Your task to perform on an android device: turn on data saver in the chrome app Image 0: 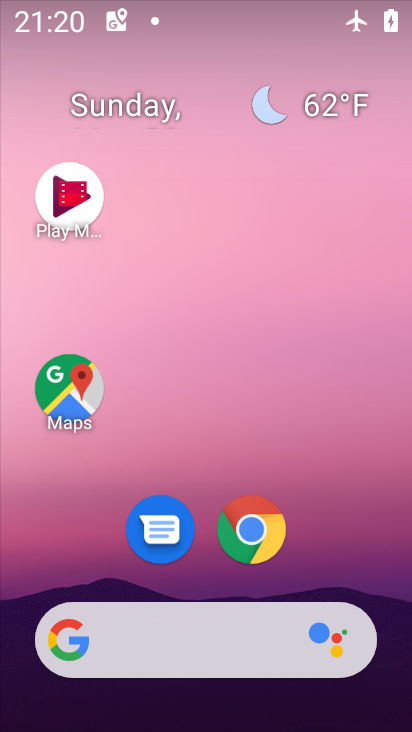
Step 0: drag from (267, 721) to (209, 47)
Your task to perform on an android device: turn on data saver in the chrome app Image 1: 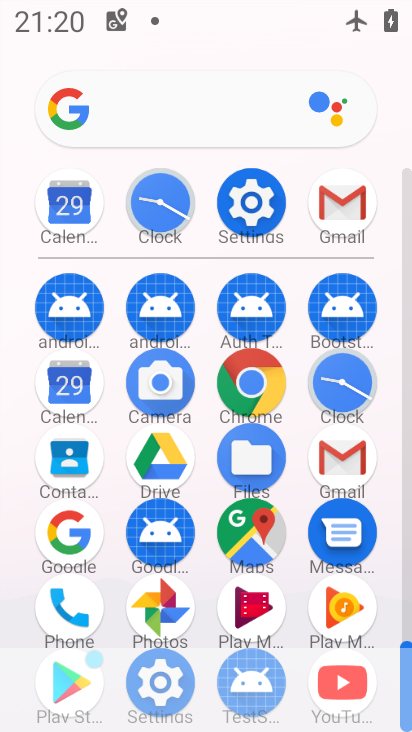
Step 1: click (255, 386)
Your task to perform on an android device: turn on data saver in the chrome app Image 2: 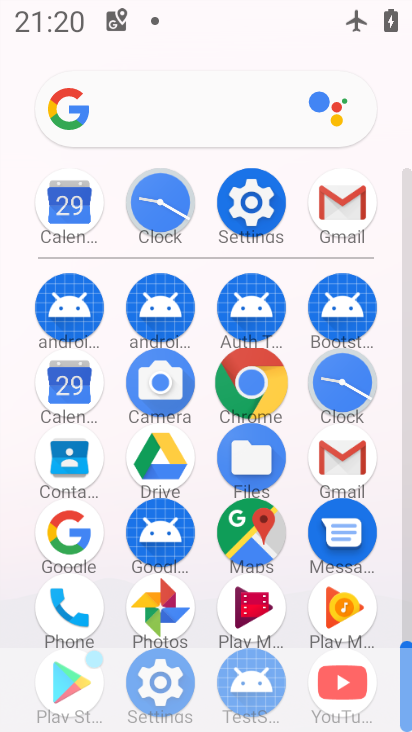
Step 2: click (264, 377)
Your task to perform on an android device: turn on data saver in the chrome app Image 3: 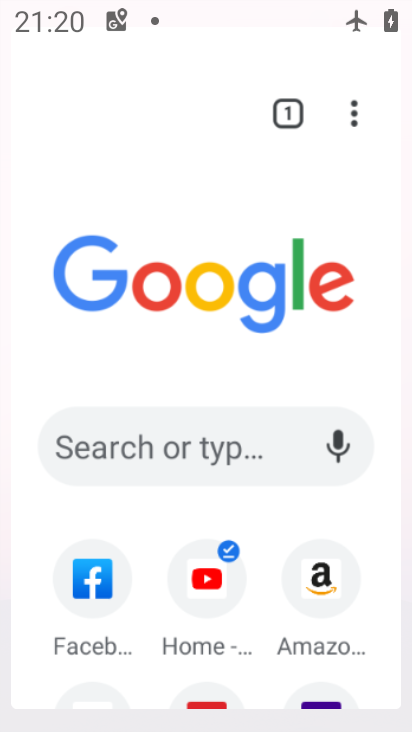
Step 3: click (263, 377)
Your task to perform on an android device: turn on data saver in the chrome app Image 4: 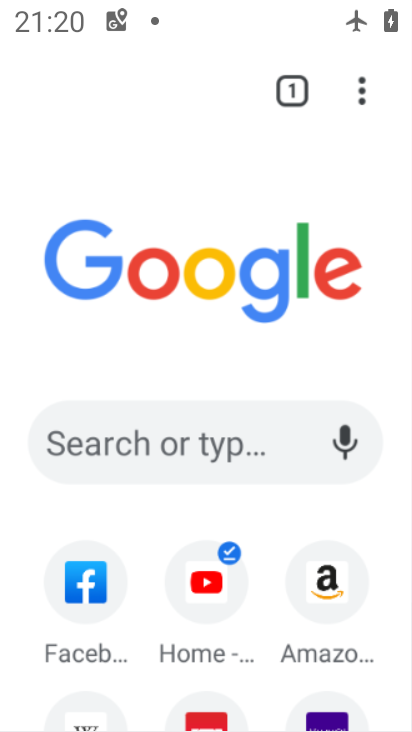
Step 4: click (263, 377)
Your task to perform on an android device: turn on data saver in the chrome app Image 5: 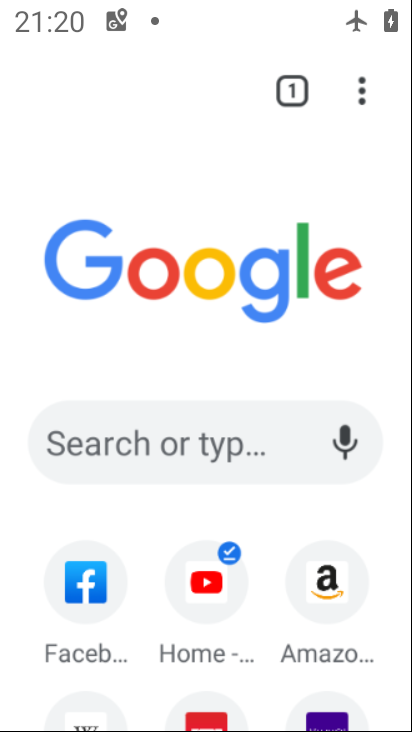
Step 5: click (262, 376)
Your task to perform on an android device: turn on data saver in the chrome app Image 6: 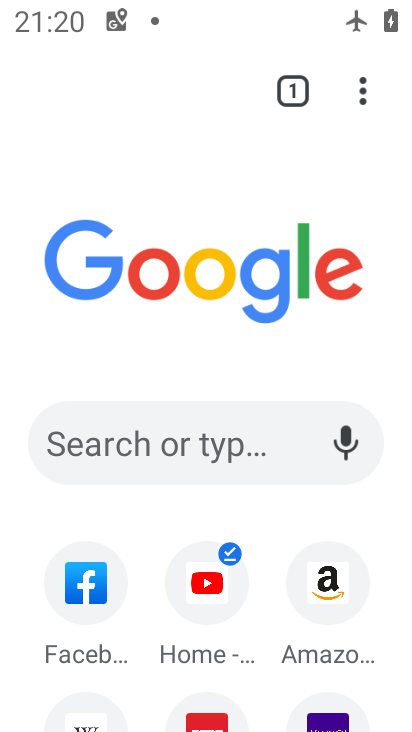
Step 6: drag from (361, 97) to (111, 549)
Your task to perform on an android device: turn on data saver in the chrome app Image 7: 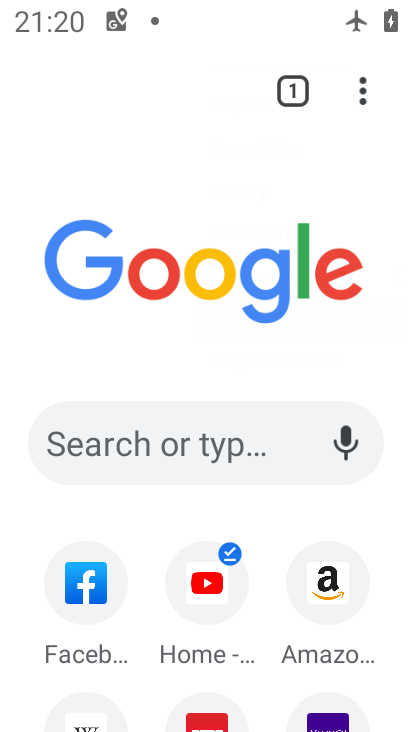
Step 7: click (111, 549)
Your task to perform on an android device: turn on data saver in the chrome app Image 8: 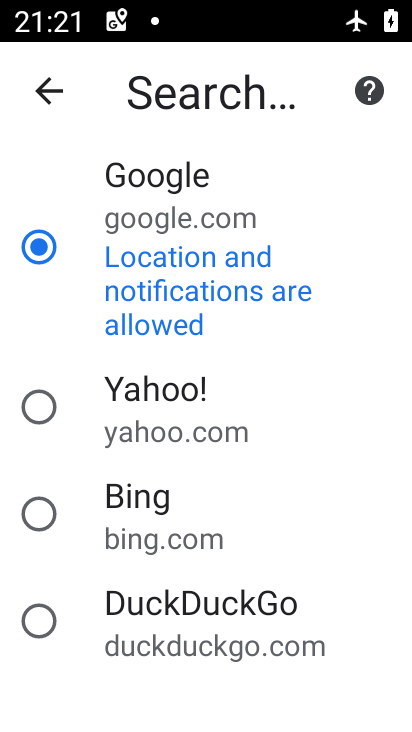
Step 8: click (38, 90)
Your task to perform on an android device: turn on data saver in the chrome app Image 9: 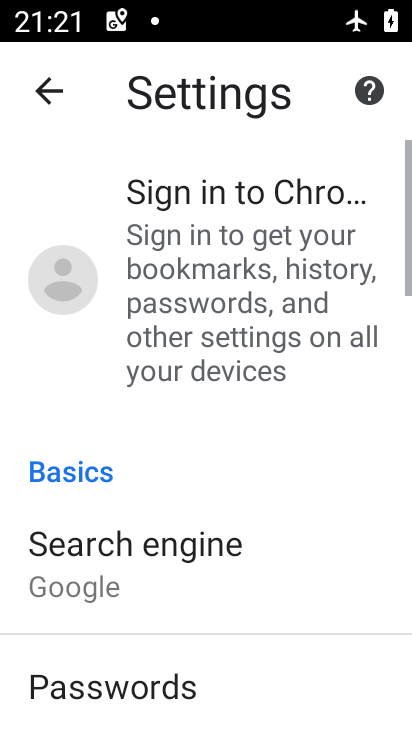
Step 9: drag from (113, 440) to (113, 147)
Your task to perform on an android device: turn on data saver in the chrome app Image 10: 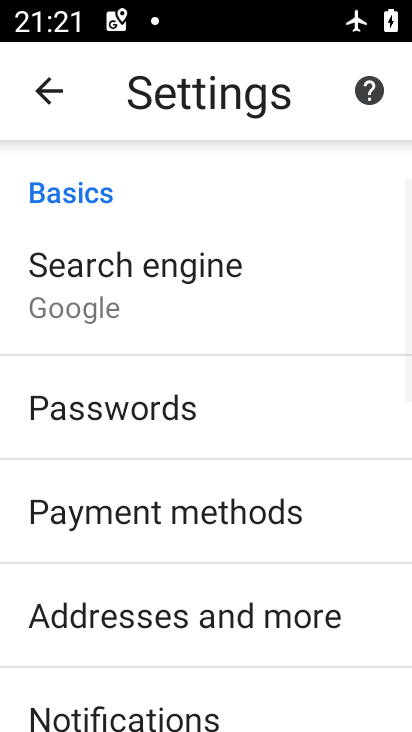
Step 10: drag from (186, 473) to (184, 28)
Your task to perform on an android device: turn on data saver in the chrome app Image 11: 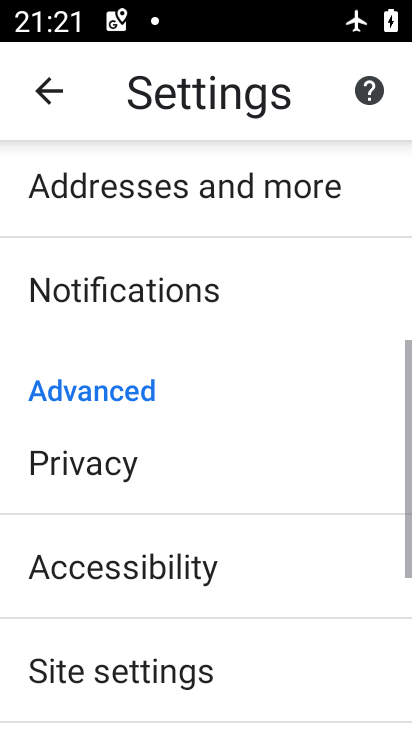
Step 11: drag from (165, 400) to (165, 94)
Your task to perform on an android device: turn on data saver in the chrome app Image 12: 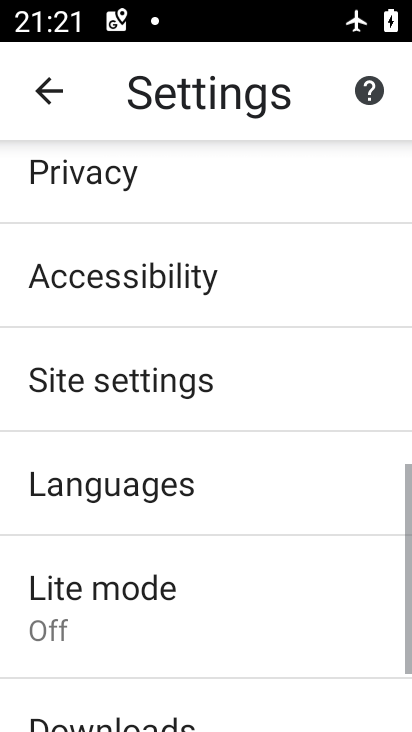
Step 12: drag from (136, 509) to (135, 214)
Your task to perform on an android device: turn on data saver in the chrome app Image 13: 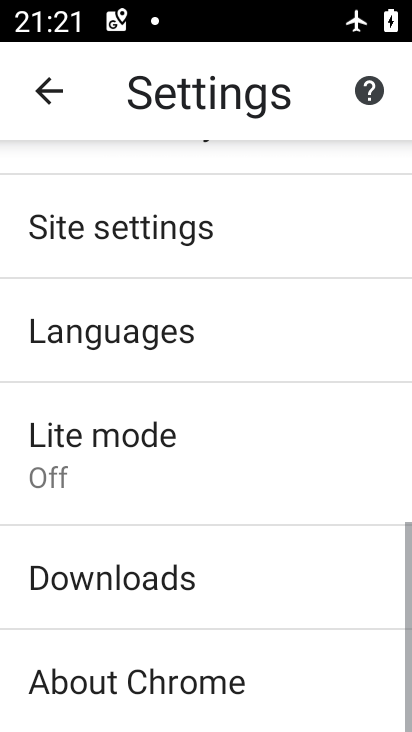
Step 13: drag from (144, 503) to (155, 250)
Your task to perform on an android device: turn on data saver in the chrome app Image 14: 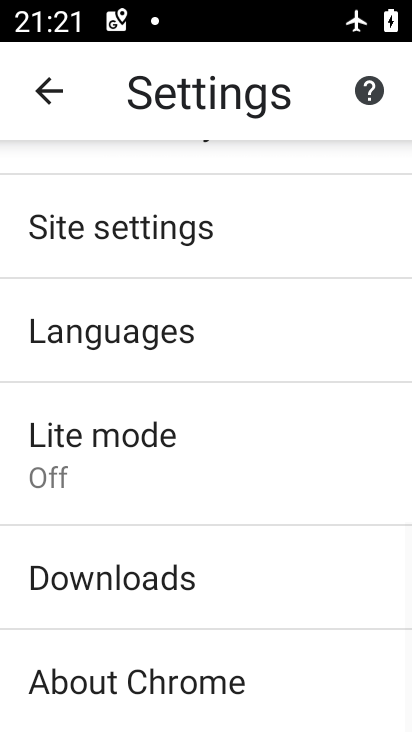
Step 14: click (98, 430)
Your task to perform on an android device: turn on data saver in the chrome app Image 15: 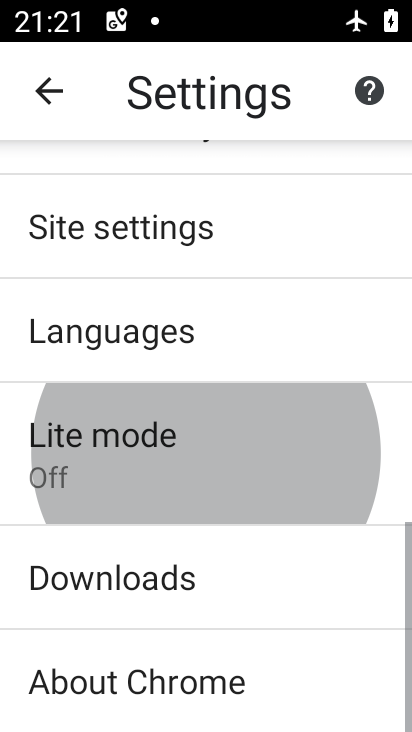
Step 15: click (98, 430)
Your task to perform on an android device: turn on data saver in the chrome app Image 16: 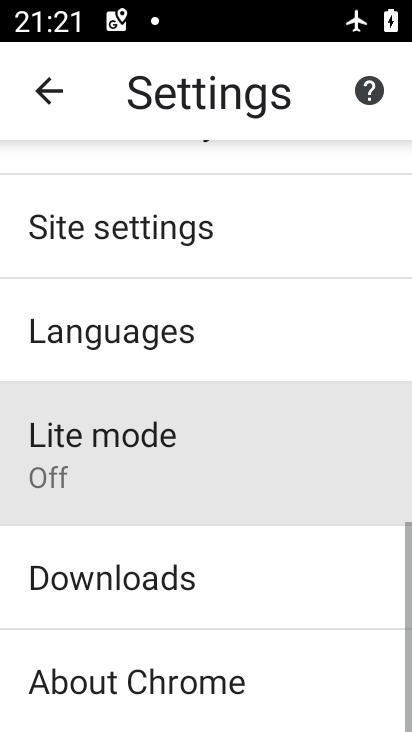
Step 16: click (98, 430)
Your task to perform on an android device: turn on data saver in the chrome app Image 17: 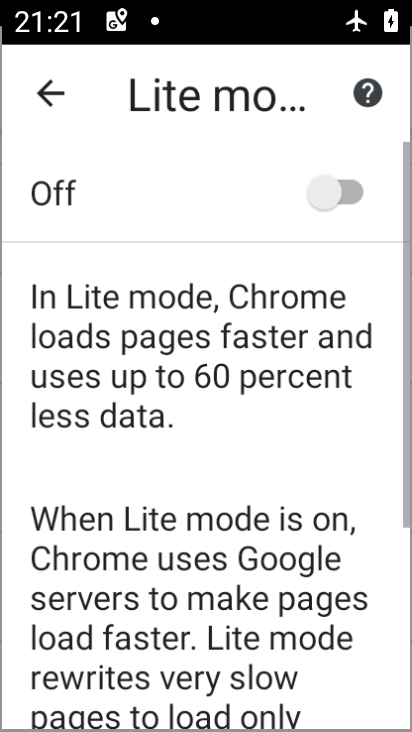
Step 17: click (97, 431)
Your task to perform on an android device: turn on data saver in the chrome app Image 18: 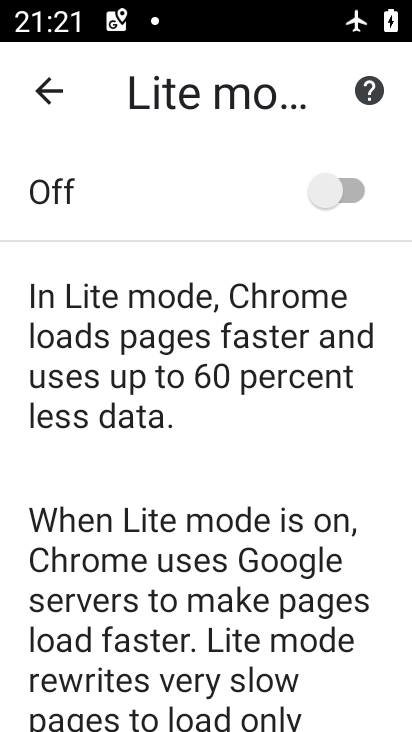
Step 18: click (320, 189)
Your task to perform on an android device: turn on data saver in the chrome app Image 19: 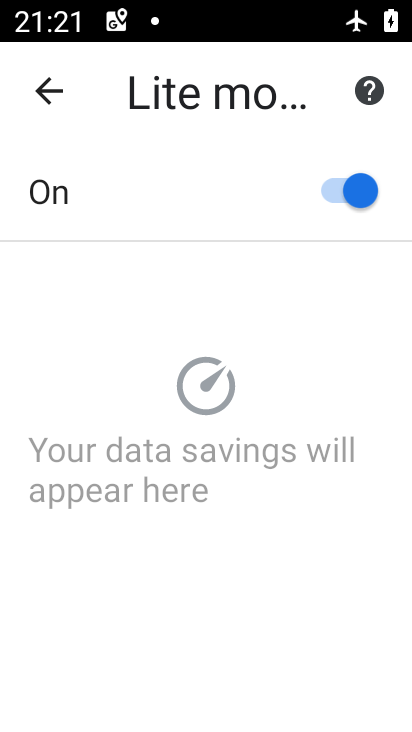
Step 19: task complete